Your task to perform on an android device: turn on javascript in the chrome app Image 0: 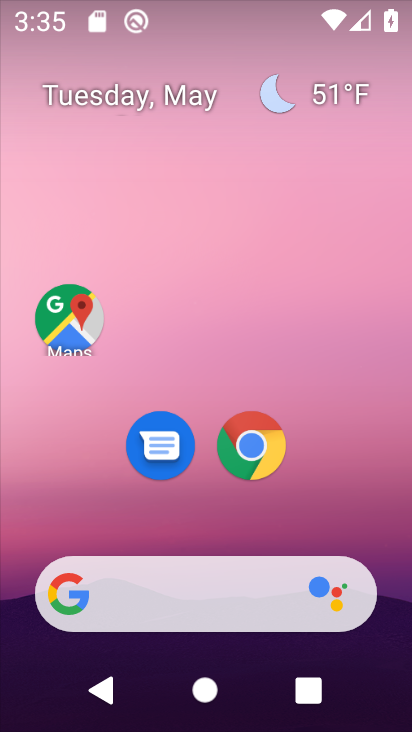
Step 0: drag from (90, 553) to (183, 22)
Your task to perform on an android device: turn on javascript in the chrome app Image 1: 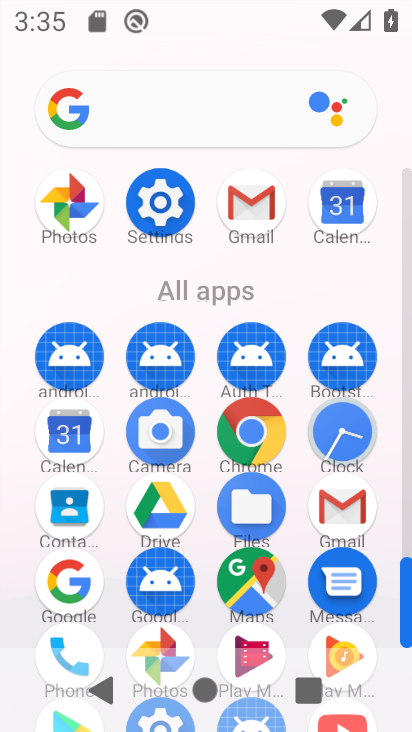
Step 1: click (249, 421)
Your task to perform on an android device: turn on javascript in the chrome app Image 2: 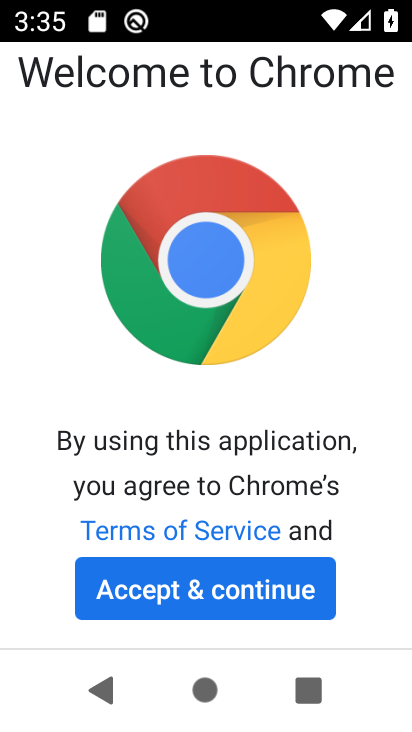
Step 2: click (281, 591)
Your task to perform on an android device: turn on javascript in the chrome app Image 3: 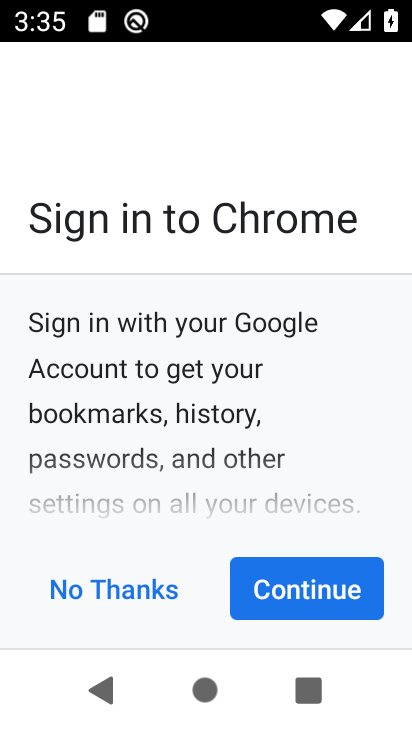
Step 3: click (288, 591)
Your task to perform on an android device: turn on javascript in the chrome app Image 4: 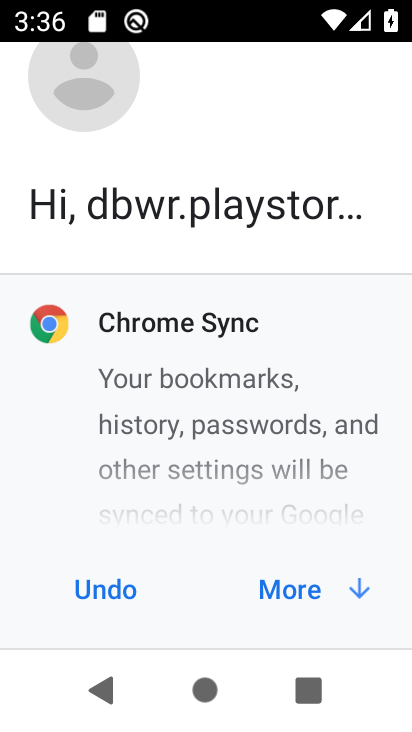
Step 4: click (331, 609)
Your task to perform on an android device: turn on javascript in the chrome app Image 5: 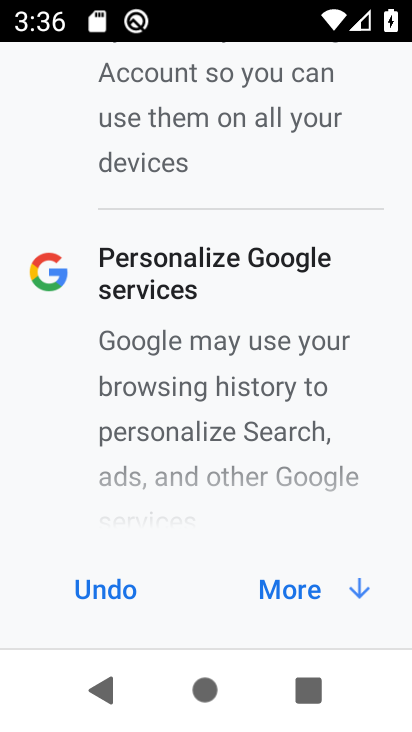
Step 5: click (327, 609)
Your task to perform on an android device: turn on javascript in the chrome app Image 6: 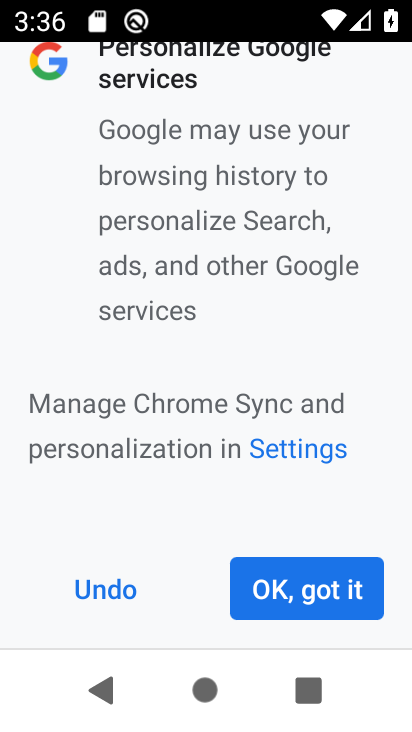
Step 6: click (327, 609)
Your task to perform on an android device: turn on javascript in the chrome app Image 7: 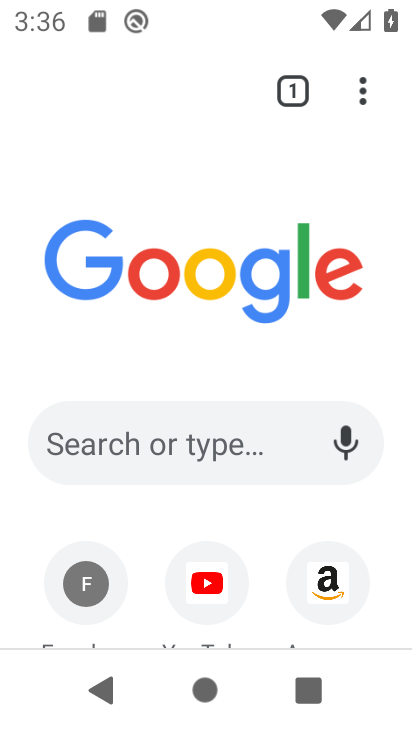
Step 7: drag from (361, 87) to (269, 495)
Your task to perform on an android device: turn on javascript in the chrome app Image 8: 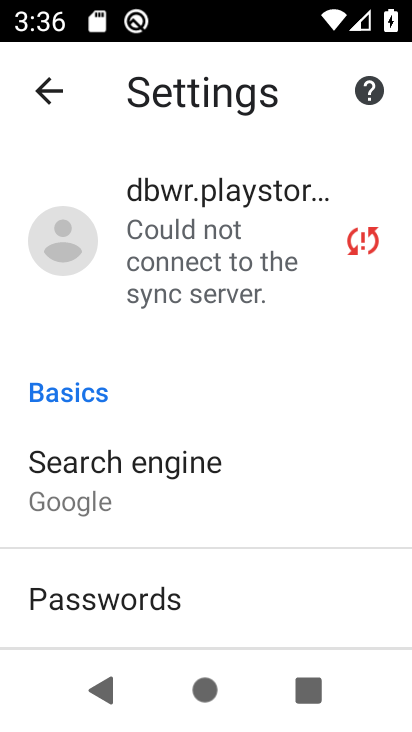
Step 8: drag from (131, 628) to (285, 165)
Your task to perform on an android device: turn on javascript in the chrome app Image 9: 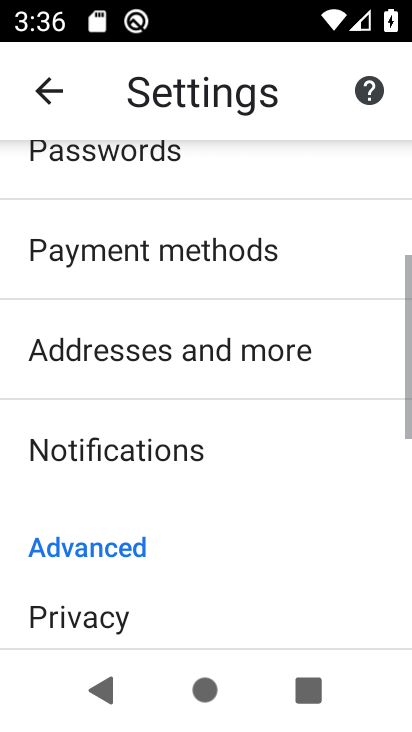
Step 9: drag from (186, 543) to (282, 189)
Your task to perform on an android device: turn on javascript in the chrome app Image 10: 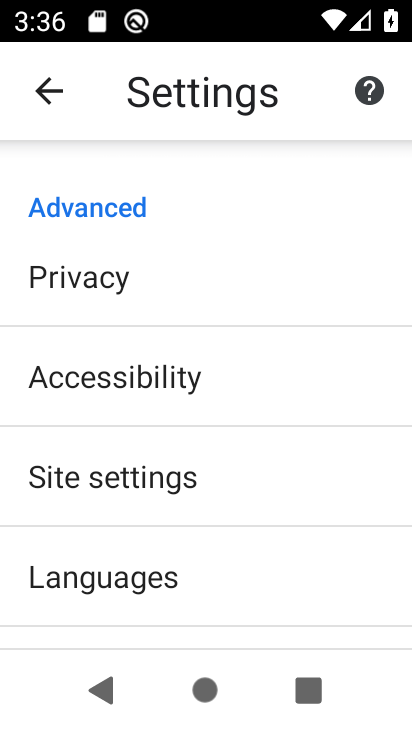
Step 10: click (188, 485)
Your task to perform on an android device: turn on javascript in the chrome app Image 11: 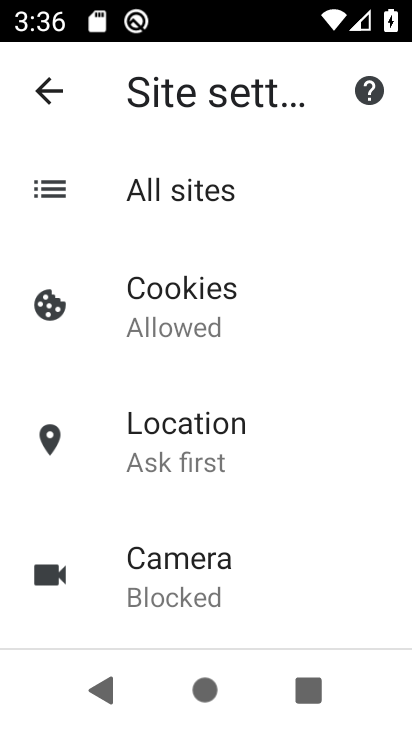
Step 11: drag from (199, 536) to (294, 148)
Your task to perform on an android device: turn on javascript in the chrome app Image 12: 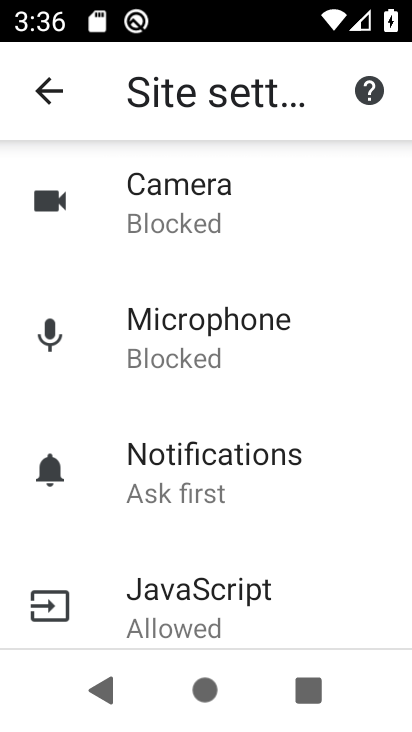
Step 12: click (219, 608)
Your task to perform on an android device: turn on javascript in the chrome app Image 13: 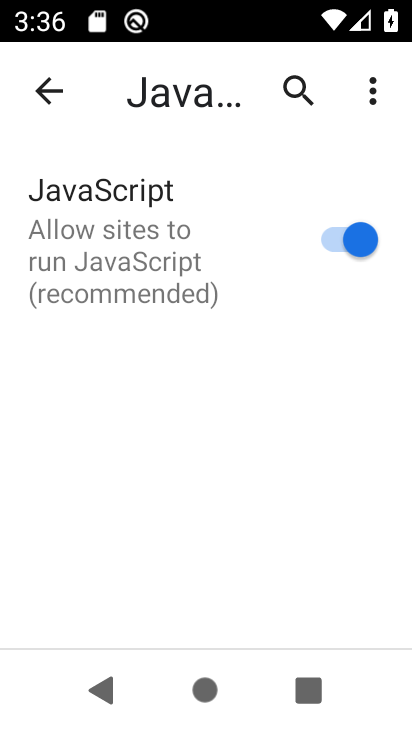
Step 13: task complete